Your task to perform on an android device: open chrome and create a bookmark for the current page Image 0: 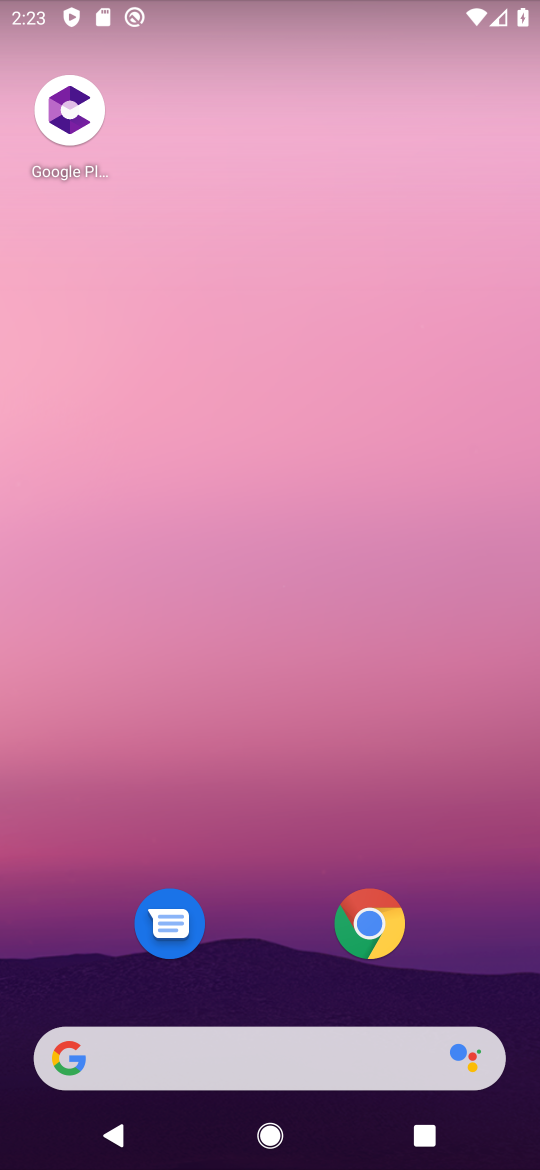
Step 0: drag from (331, 939) to (241, 2)
Your task to perform on an android device: open chrome and create a bookmark for the current page Image 1: 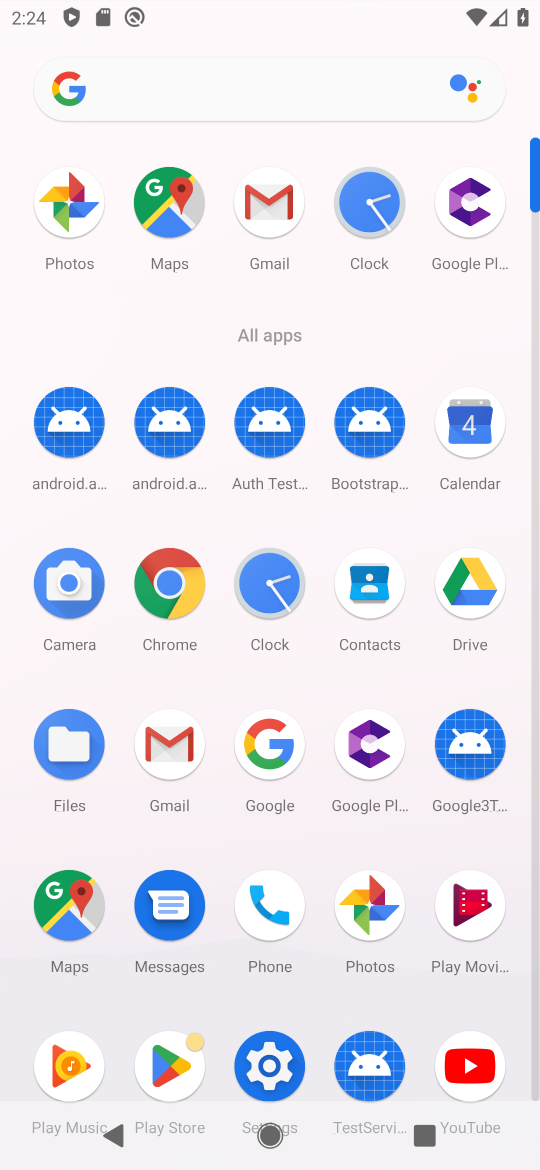
Step 1: click (194, 598)
Your task to perform on an android device: open chrome and create a bookmark for the current page Image 2: 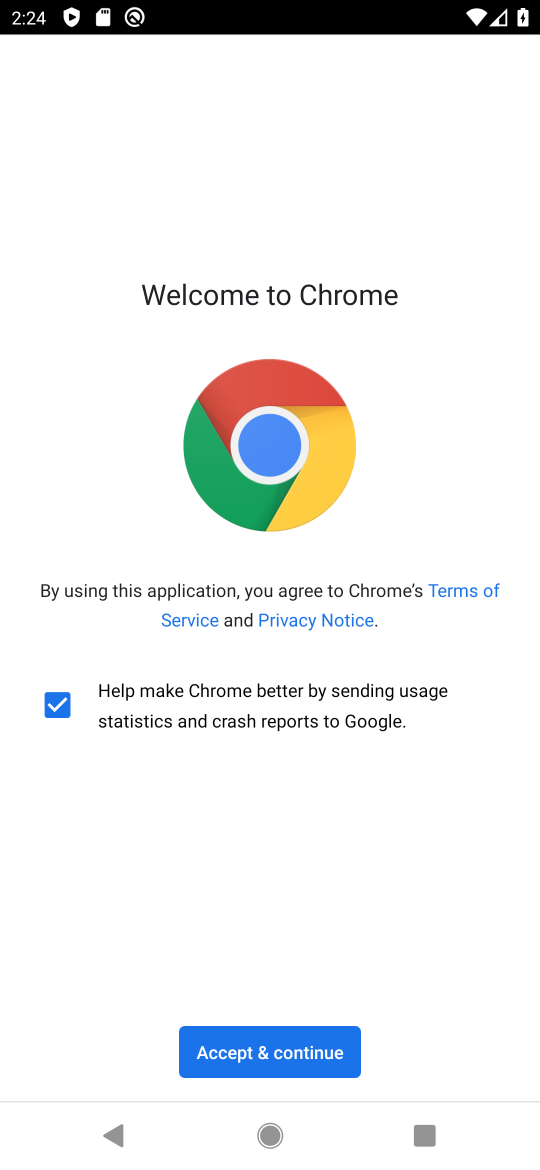
Step 2: click (263, 1049)
Your task to perform on an android device: open chrome and create a bookmark for the current page Image 3: 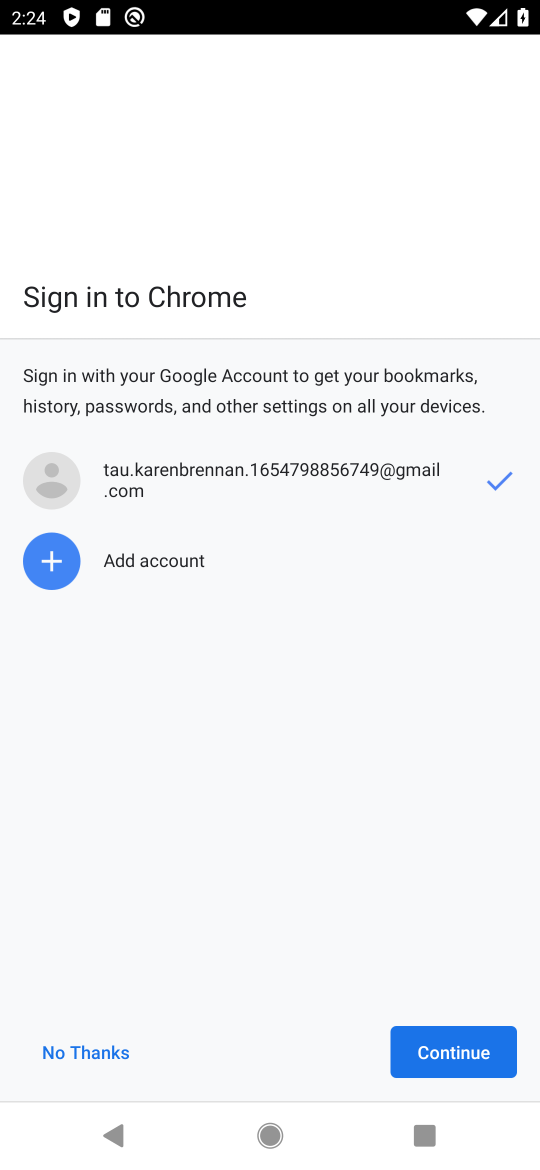
Step 3: click (88, 1077)
Your task to perform on an android device: open chrome and create a bookmark for the current page Image 4: 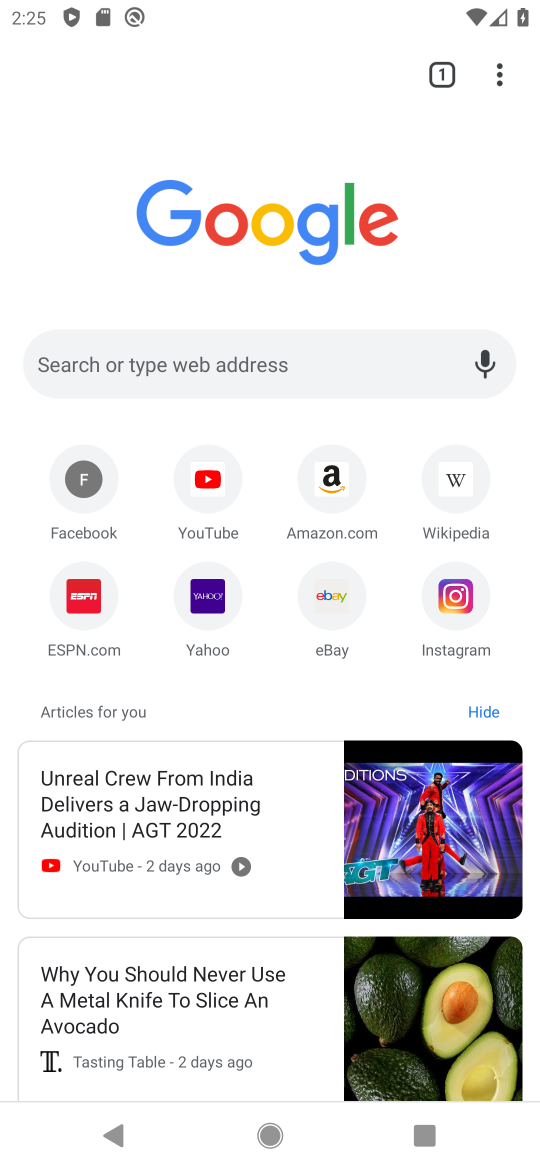
Step 4: task complete